Your task to perform on an android device: see creations saved in the google photos Image 0: 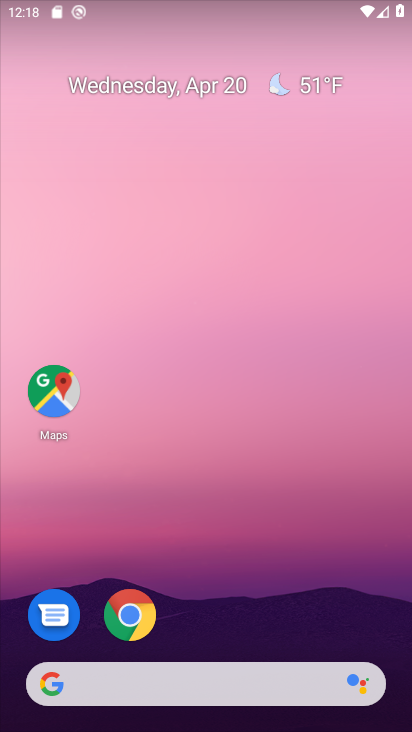
Step 0: drag from (204, 688) to (279, 213)
Your task to perform on an android device: see creations saved in the google photos Image 1: 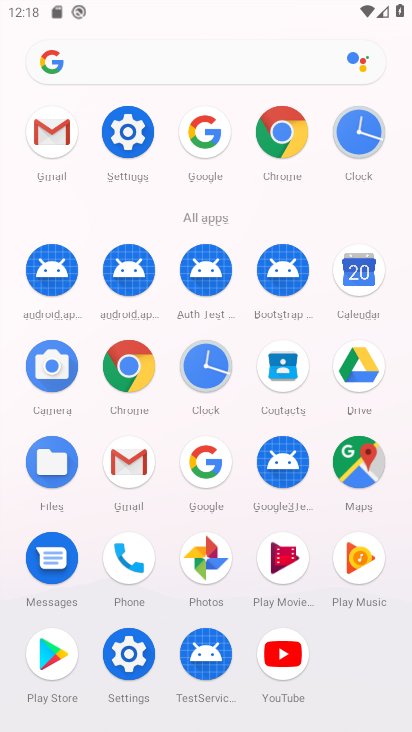
Step 1: click (204, 556)
Your task to perform on an android device: see creations saved in the google photos Image 2: 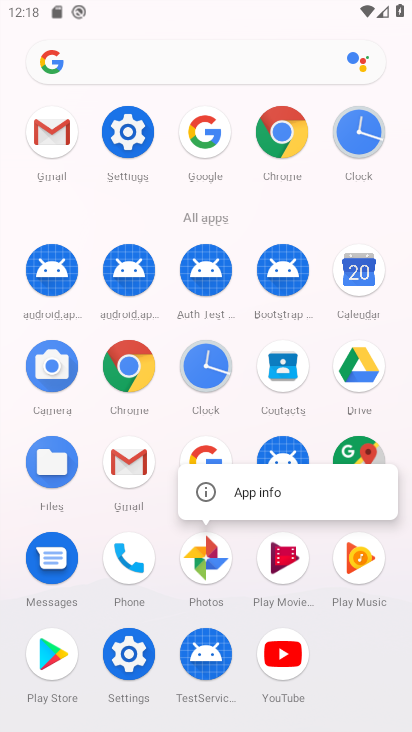
Step 2: click (209, 568)
Your task to perform on an android device: see creations saved in the google photos Image 3: 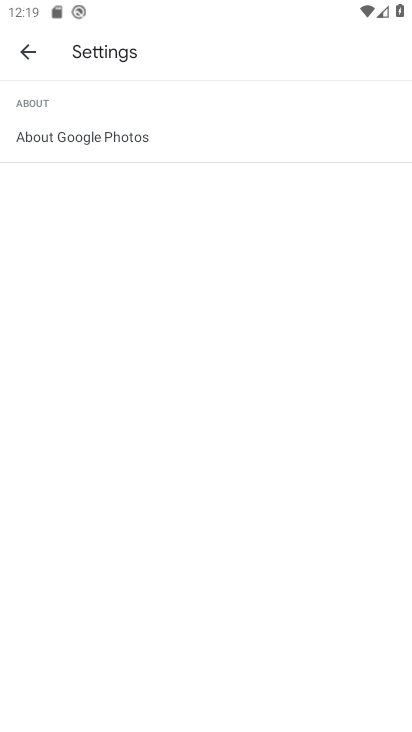
Step 3: press back button
Your task to perform on an android device: see creations saved in the google photos Image 4: 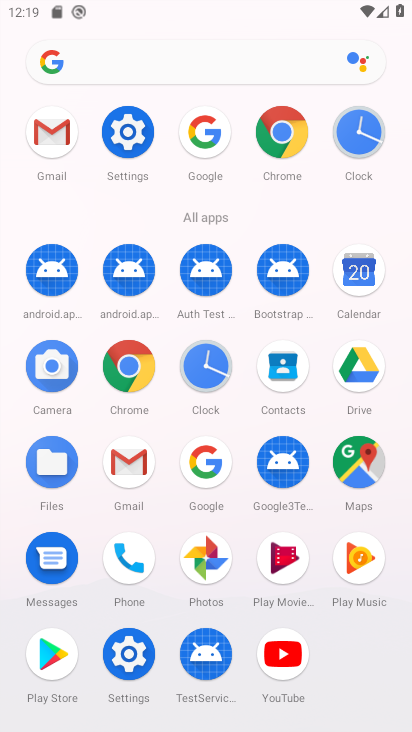
Step 4: click (198, 566)
Your task to perform on an android device: see creations saved in the google photos Image 5: 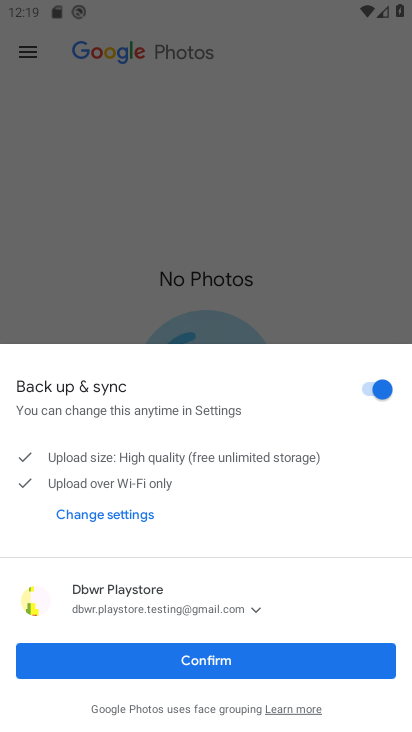
Step 5: click (188, 659)
Your task to perform on an android device: see creations saved in the google photos Image 6: 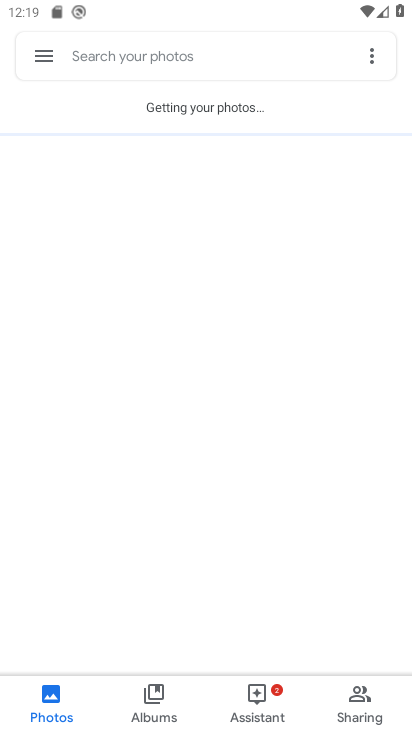
Step 6: click (253, 710)
Your task to perform on an android device: see creations saved in the google photos Image 7: 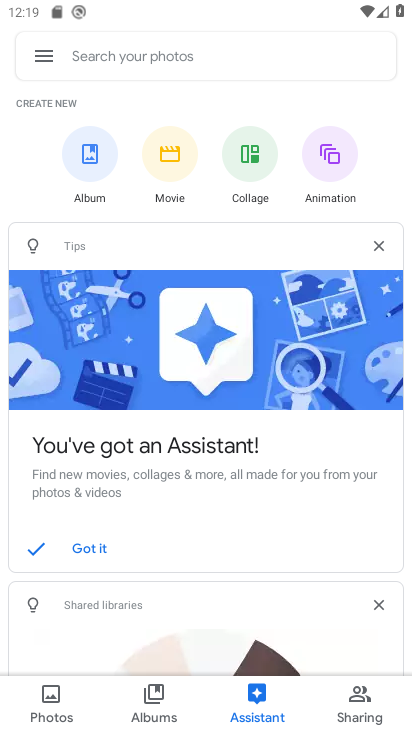
Step 7: task complete